Your task to perform on an android device: Clear the cart on walmart. Search for logitech g502 on walmart, select the first entry, add it to the cart, then select checkout. Image 0: 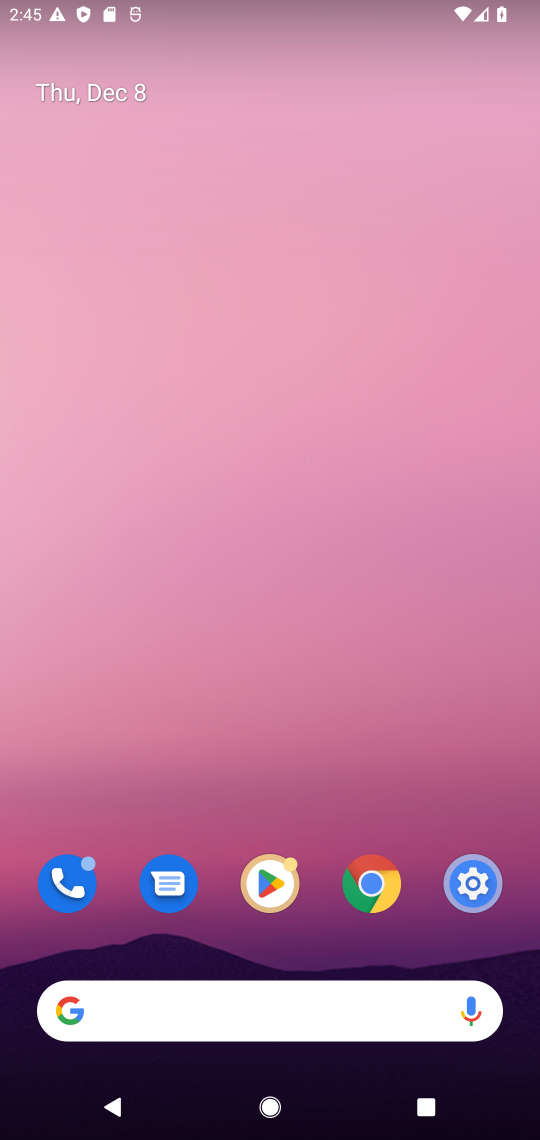
Step 0: drag from (291, 987) to (290, 0)
Your task to perform on an android device: Clear the cart on walmart. Search for logitech g502 on walmart, select the first entry, add it to the cart, then select checkout. Image 1: 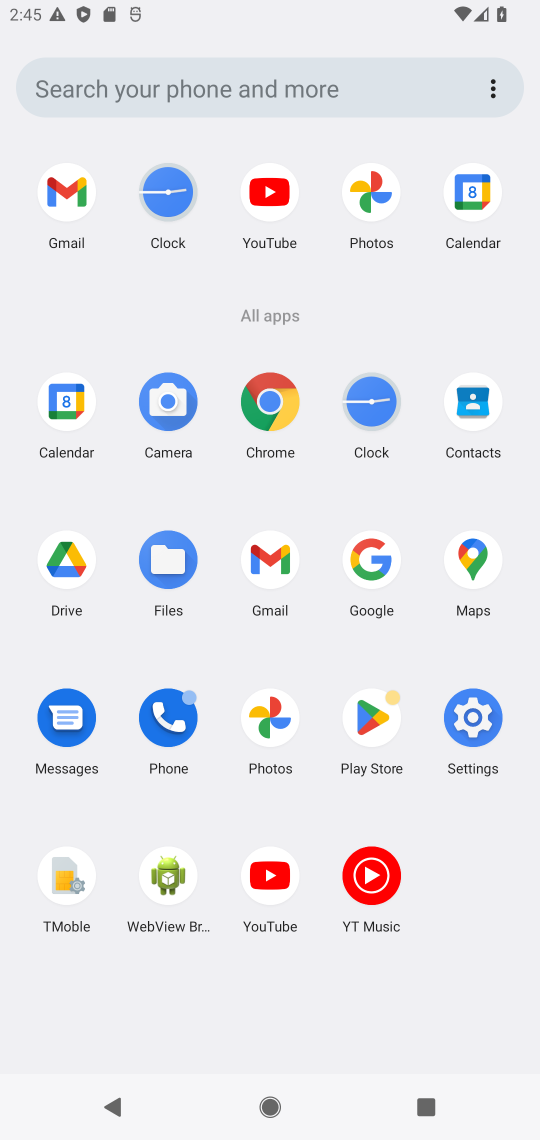
Step 1: click (363, 556)
Your task to perform on an android device: Clear the cart on walmart. Search for logitech g502 on walmart, select the first entry, add it to the cart, then select checkout. Image 2: 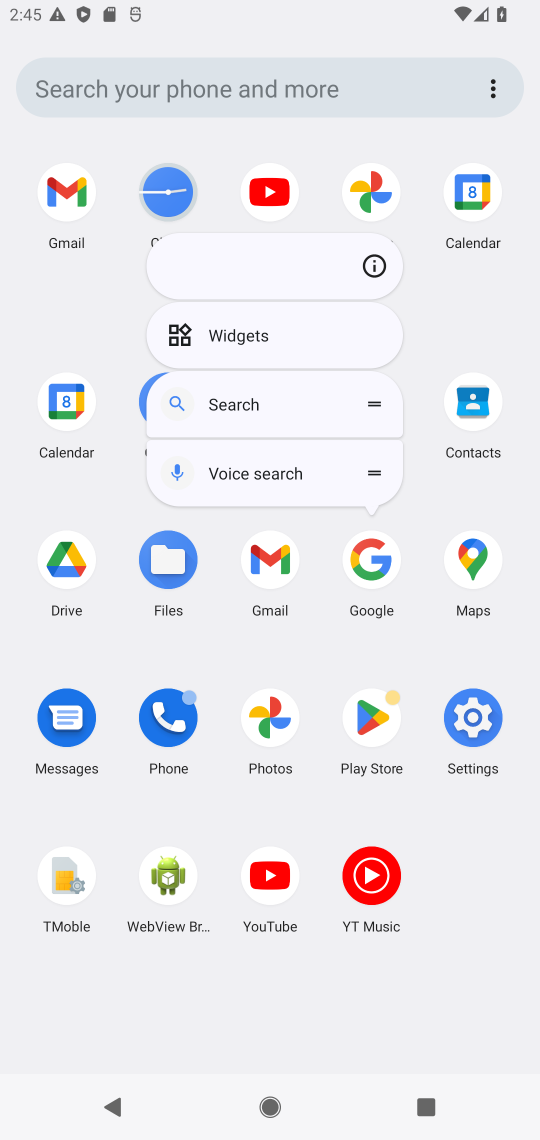
Step 2: click (378, 562)
Your task to perform on an android device: Clear the cart on walmart. Search for logitech g502 on walmart, select the first entry, add it to the cart, then select checkout. Image 3: 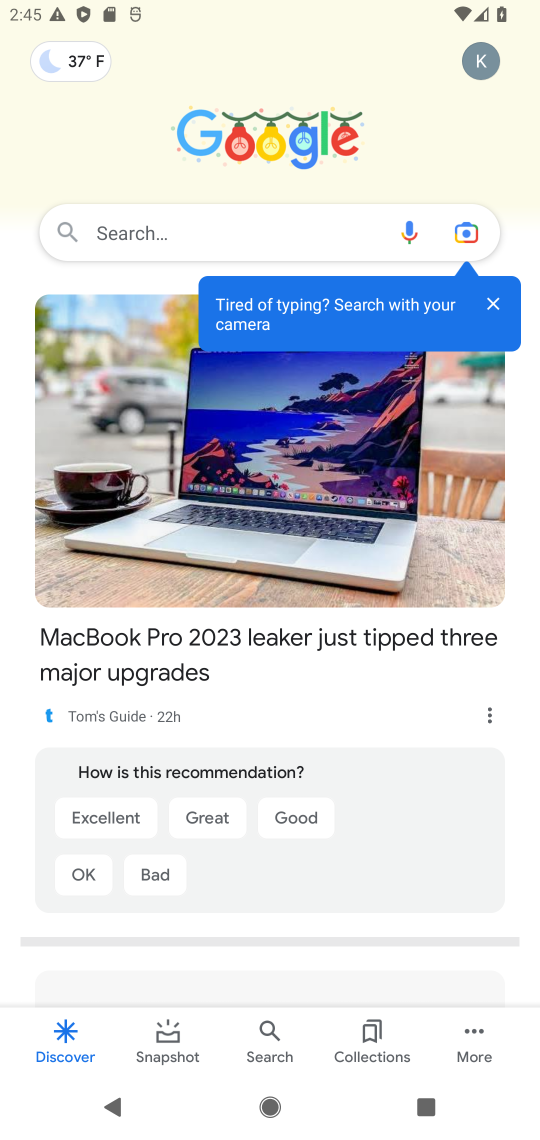
Step 3: click (131, 236)
Your task to perform on an android device: Clear the cart on walmart. Search for logitech g502 on walmart, select the first entry, add it to the cart, then select checkout. Image 4: 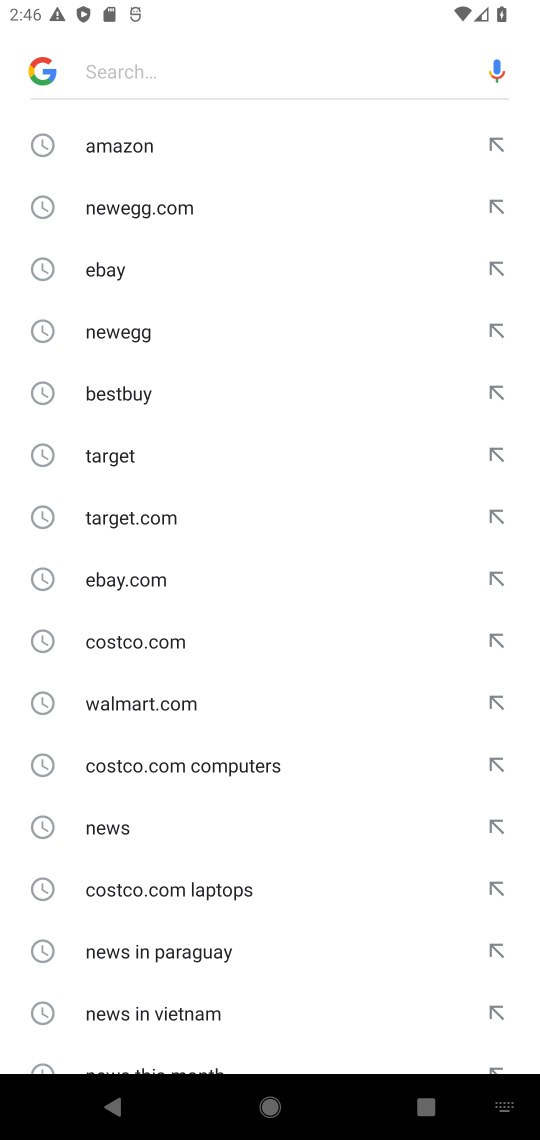
Step 4: click (130, 702)
Your task to perform on an android device: Clear the cart on walmart. Search for logitech g502 on walmart, select the first entry, add it to the cart, then select checkout. Image 5: 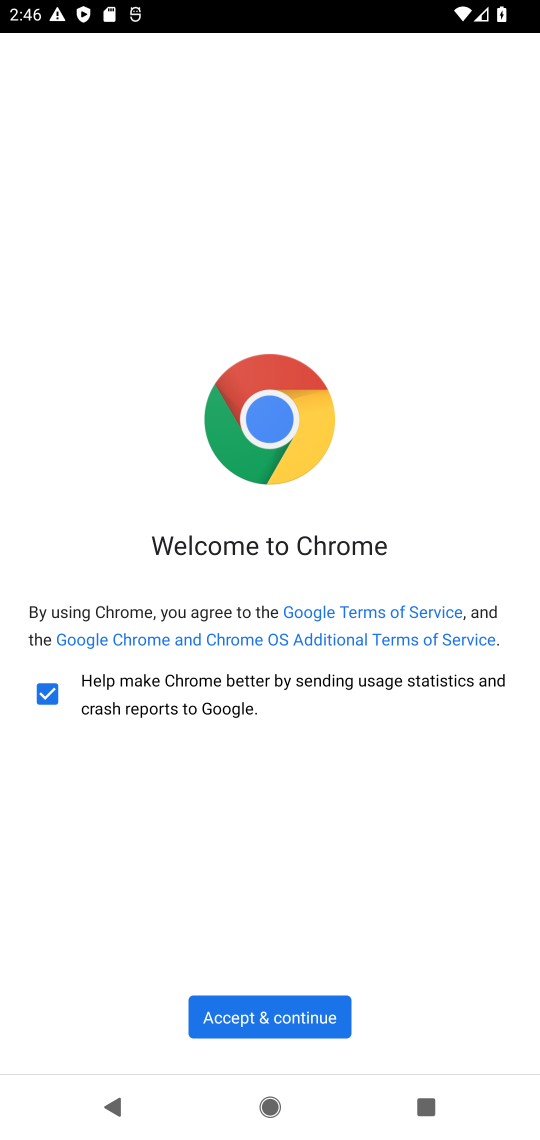
Step 5: click (274, 1009)
Your task to perform on an android device: Clear the cart on walmart. Search for logitech g502 on walmart, select the first entry, add it to the cart, then select checkout. Image 6: 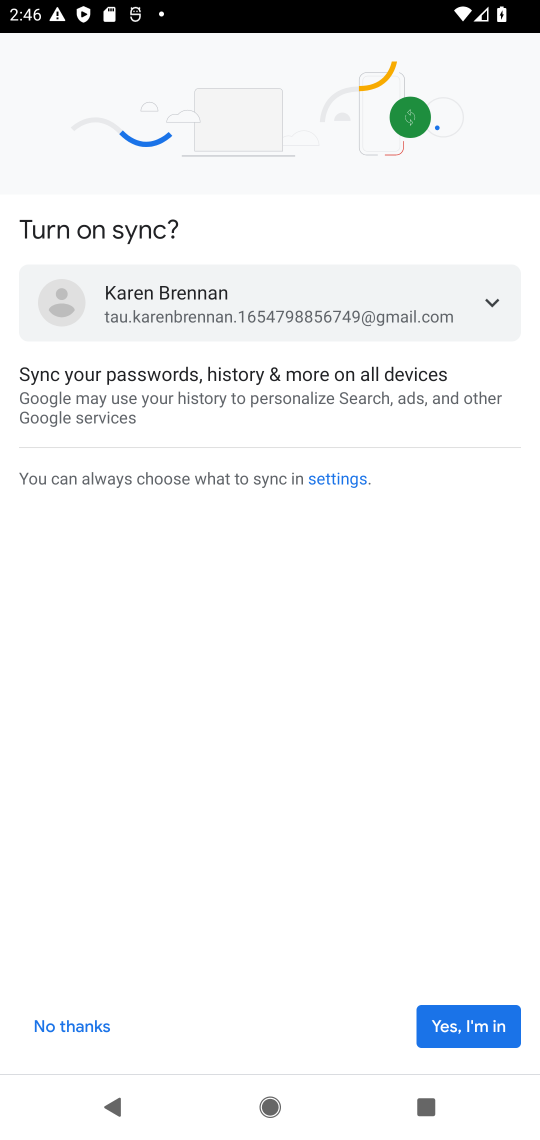
Step 6: click (466, 1027)
Your task to perform on an android device: Clear the cart on walmart. Search for logitech g502 on walmart, select the first entry, add it to the cart, then select checkout. Image 7: 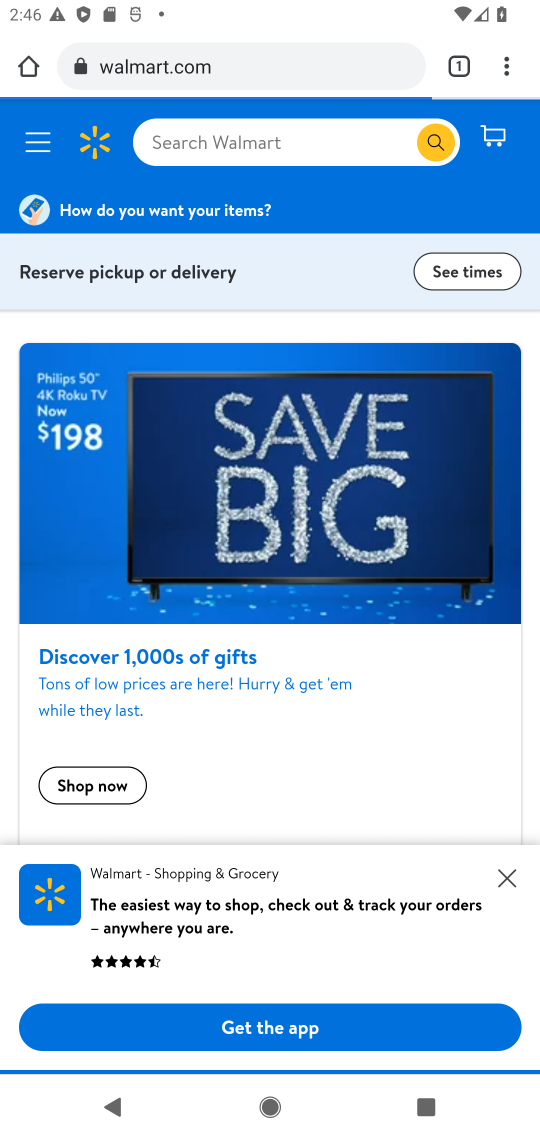
Step 7: click (271, 138)
Your task to perform on an android device: Clear the cart on walmart. Search for logitech g502 on walmart, select the first entry, add it to the cart, then select checkout. Image 8: 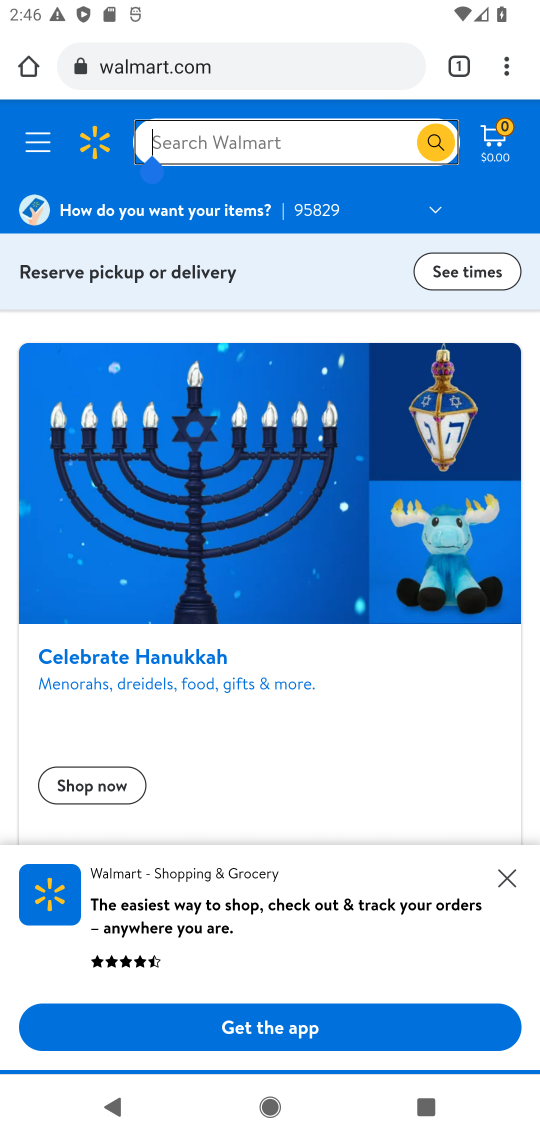
Step 8: click (501, 871)
Your task to perform on an android device: Clear the cart on walmart. Search for logitech g502 on walmart, select the first entry, add it to the cart, then select checkout. Image 9: 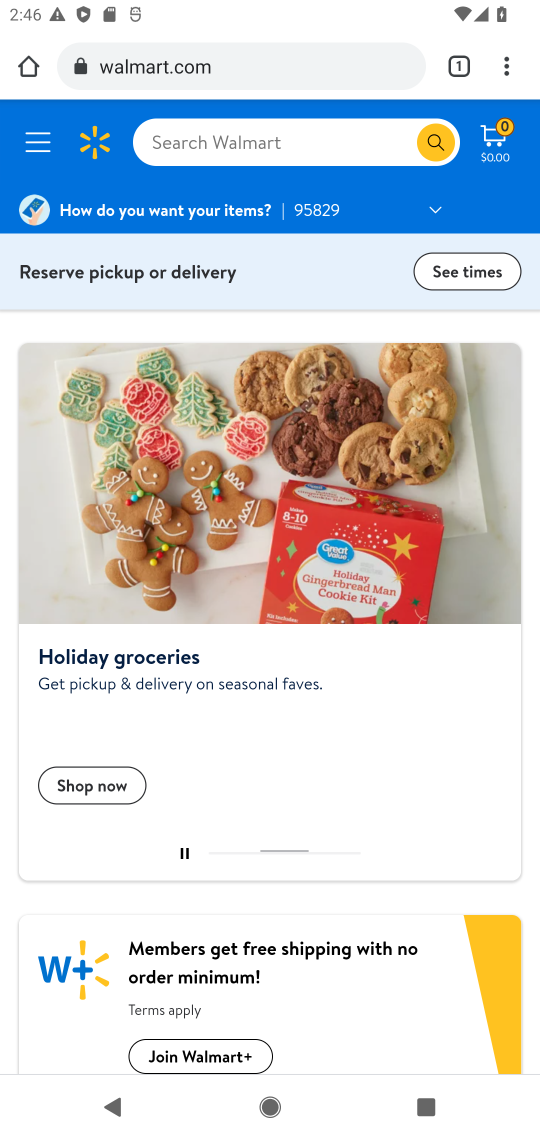
Step 9: click (220, 149)
Your task to perform on an android device: Clear the cart on walmart. Search for logitech g502 on walmart, select the first entry, add it to the cart, then select checkout. Image 10: 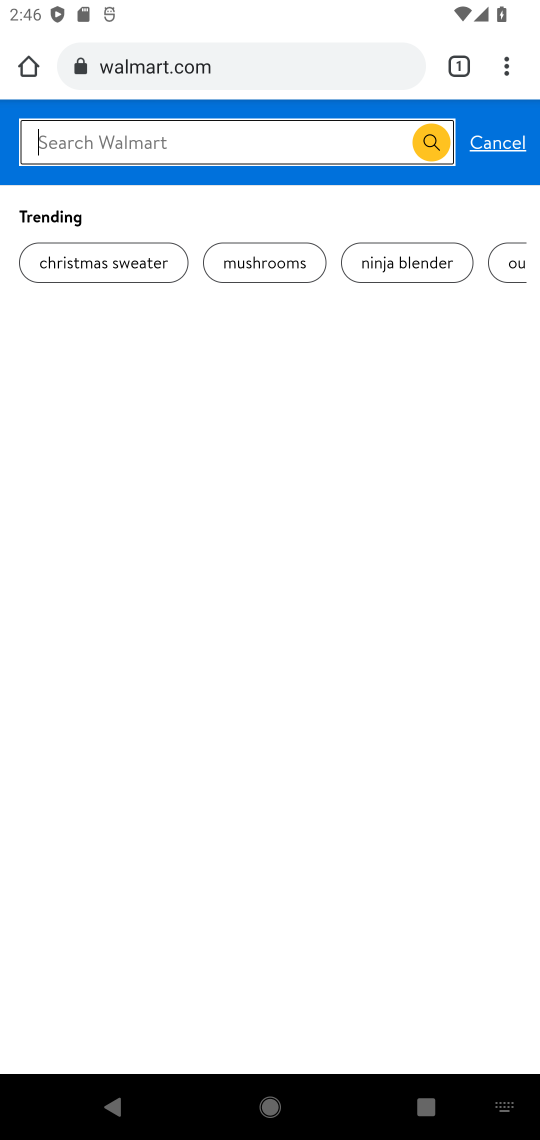
Step 10: type "logitech g502"
Your task to perform on an android device: Clear the cart on walmart. Search for logitech g502 on walmart, select the first entry, add it to the cart, then select checkout. Image 11: 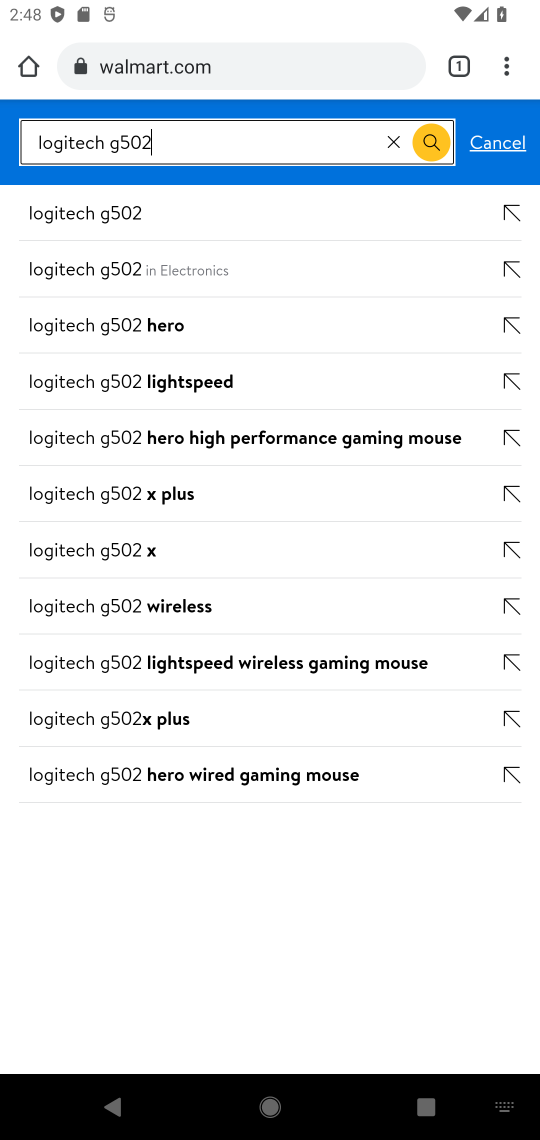
Step 11: click (94, 221)
Your task to perform on an android device: Clear the cart on walmart. Search for logitech g502 on walmart, select the first entry, add it to the cart, then select checkout. Image 12: 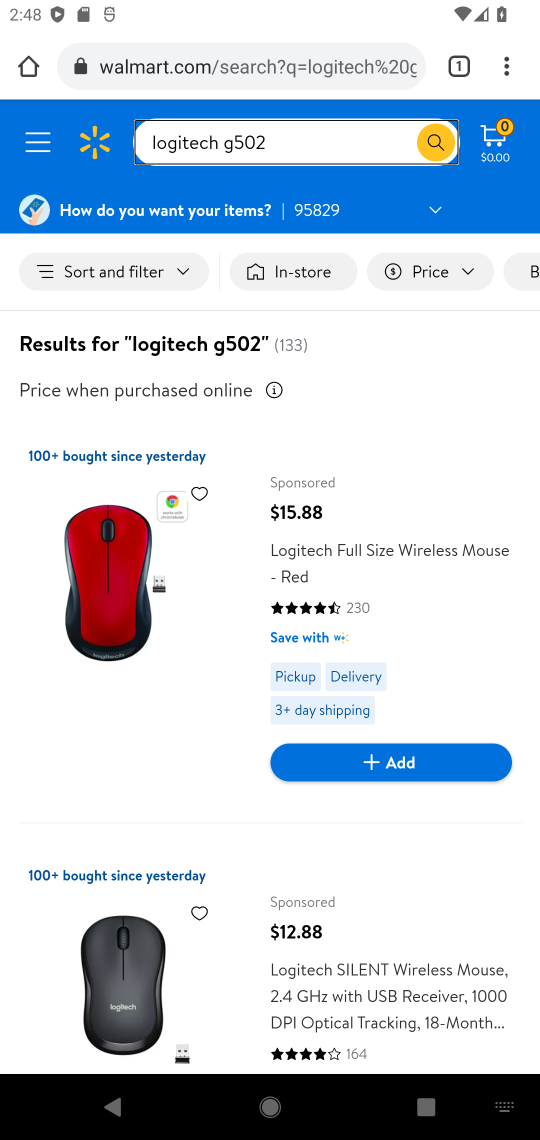
Step 12: click (393, 764)
Your task to perform on an android device: Clear the cart on walmart. Search for logitech g502 on walmart, select the first entry, add it to the cart, then select checkout. Image 13: 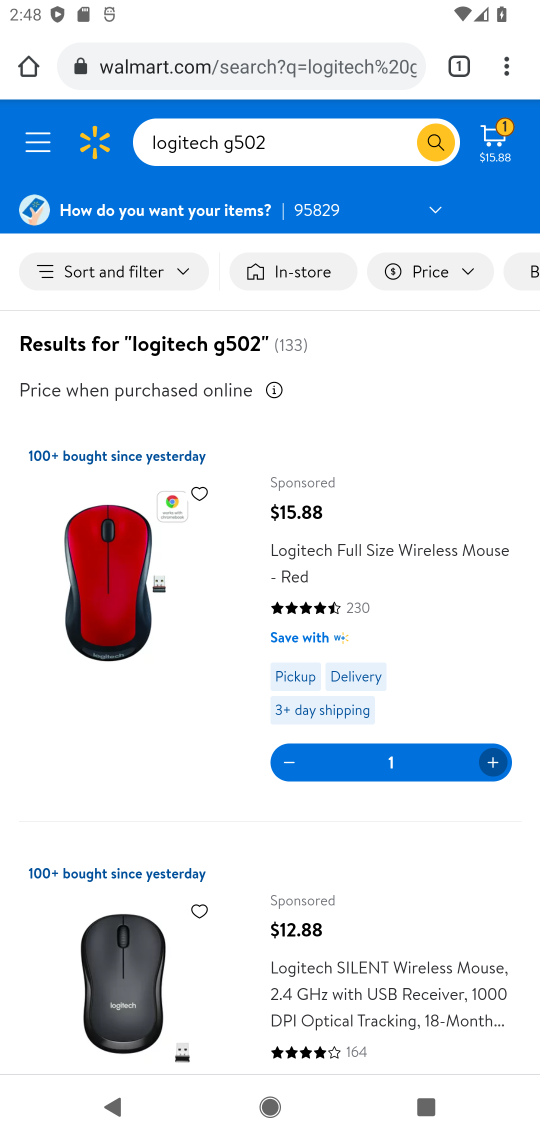
Step 13: click (502, 142)
Your task to perform on an android device: Clear the cart on walmart. Search for logitech g502 on walmart, select the first entry, add it to the cart, then select checkout. Image 14: 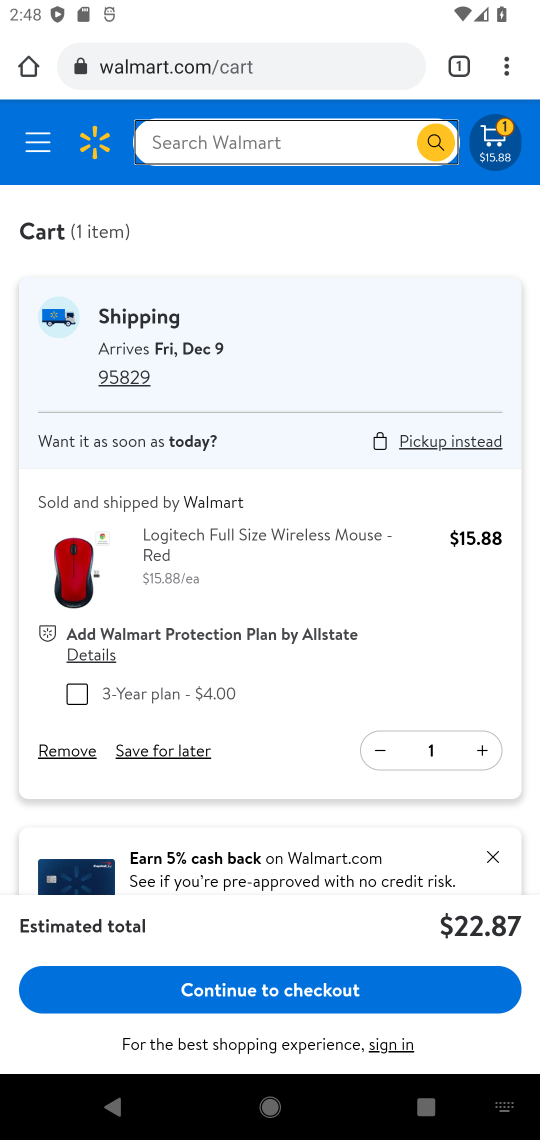
Step 14: click (234, 981)
Your task to perform on an android device: Clear the cart on walmart. Search for logitech g502 on walmart, select the first entry, add it to the cart, then select checkout. Image 15: 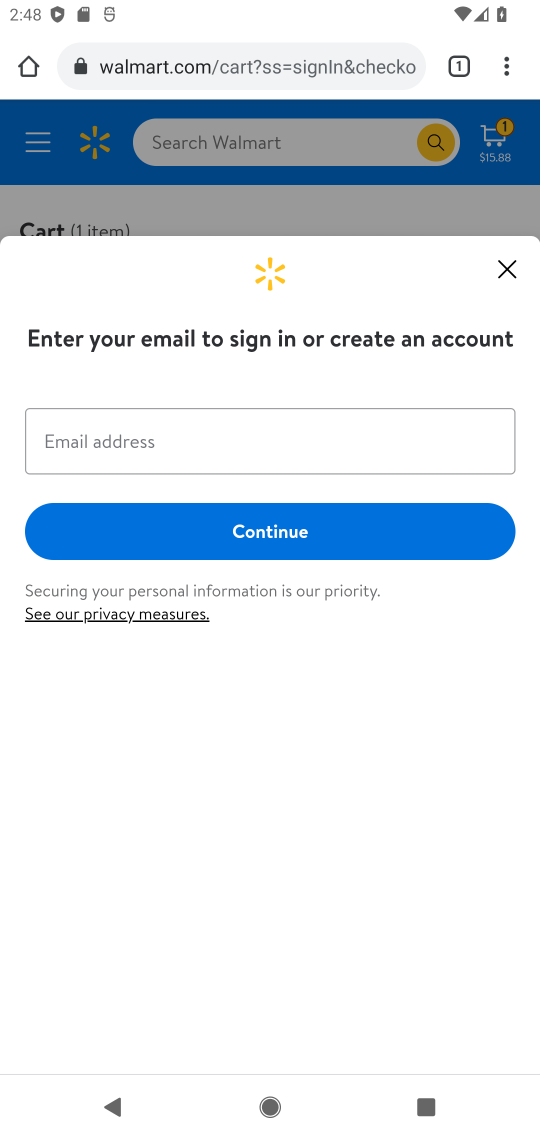
Step 15: task complete